Your task to perform on an android device: Show me popular games on the Play Store Image 0: 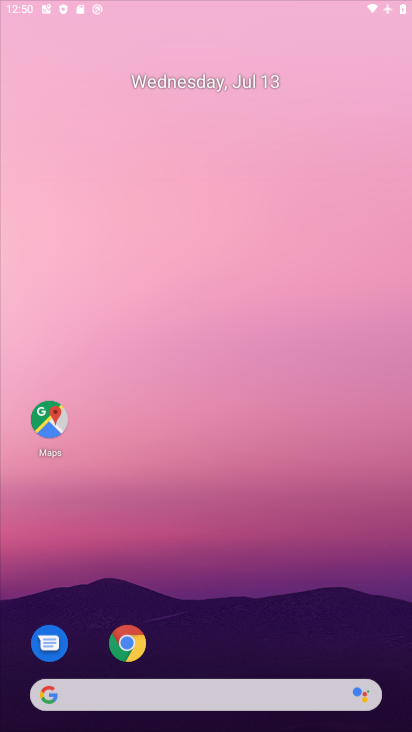
Step 0: click (227, 83)
Your task to perform on an android device: Show me popular games on the Play Store Image 1: 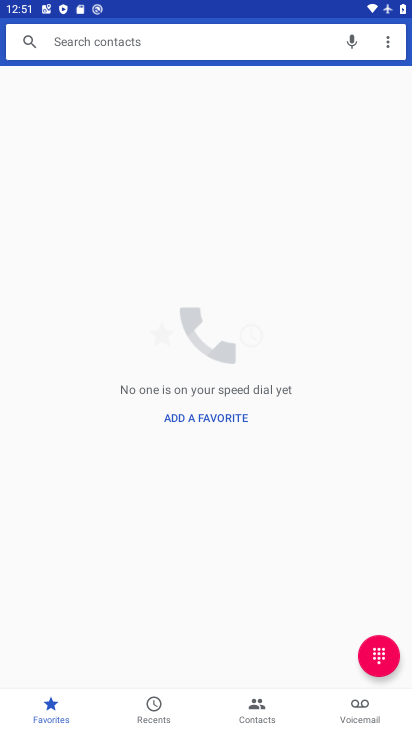
Step 1: press home button
Your task to perform on an android device: Show me popular games on the Play Store Image 2: 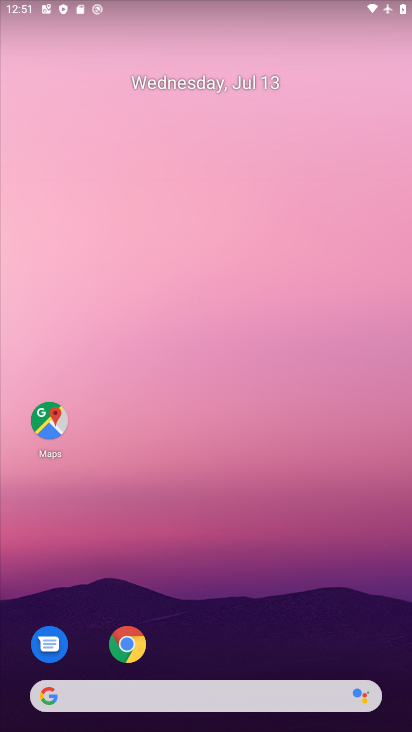
Step 2: drag from (253, 593) to (247, 89)
Your task to perform on an android device: Show me popular games on the Play Store Image 3: 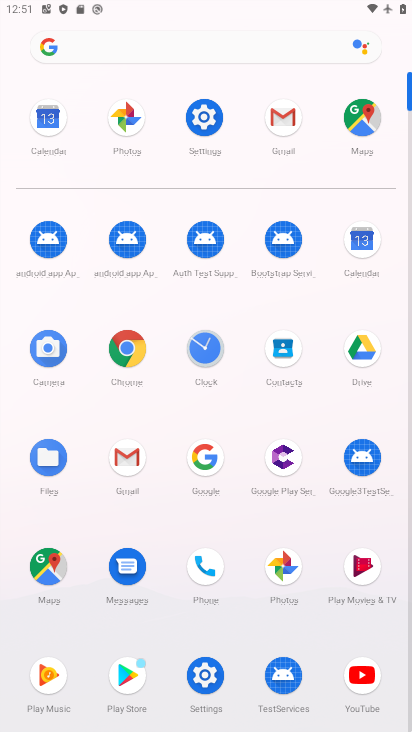
Step 3: click (126, 670)
Your task to perform on an android device: Show me popular games on the Play Store Image 4: 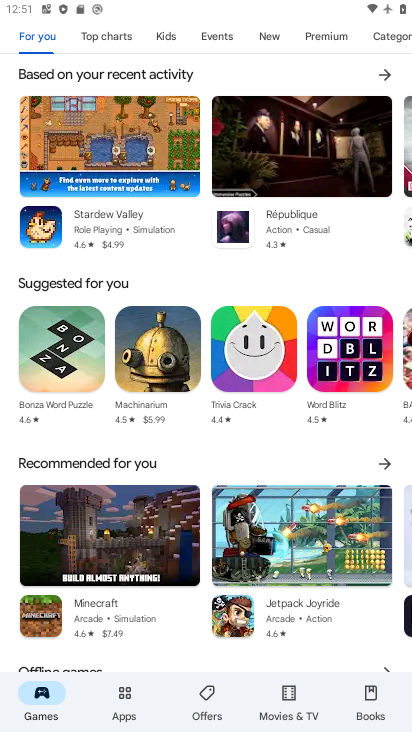
Step 4: task complete